Your task to perform on an android device: open app "Contacts" Image 0: 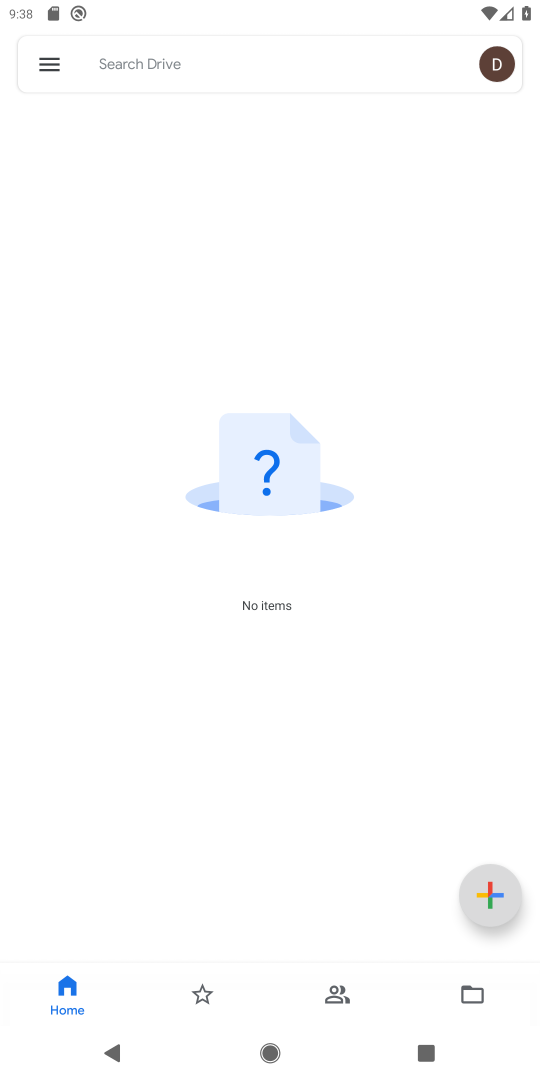
Step 0: press home button
Your task to perform on an android device: open app "Contacts" Image 1: 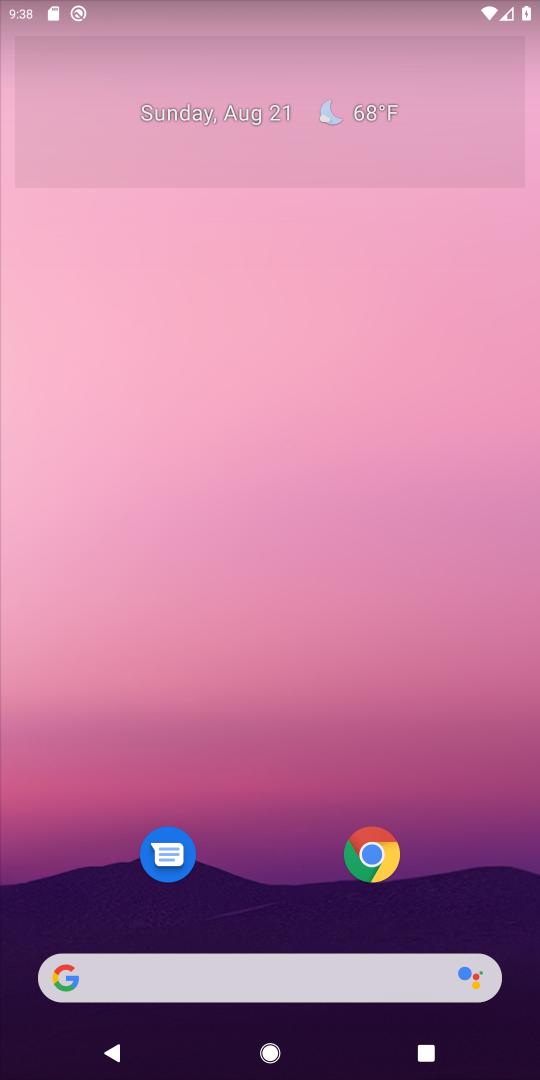
Step 1: drag from (281, 917) to (274, 88)
Your task to perform on an android device: open app "Contacts" Image 2: 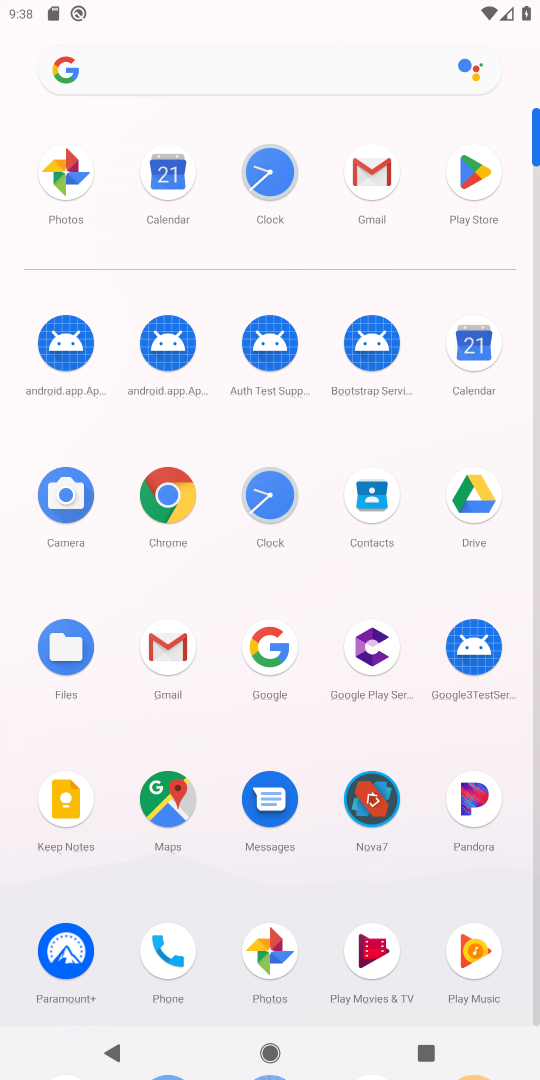
Step 2: click (351, 524)
Your task to perform on an android device: open app "Contacts" Image 3: 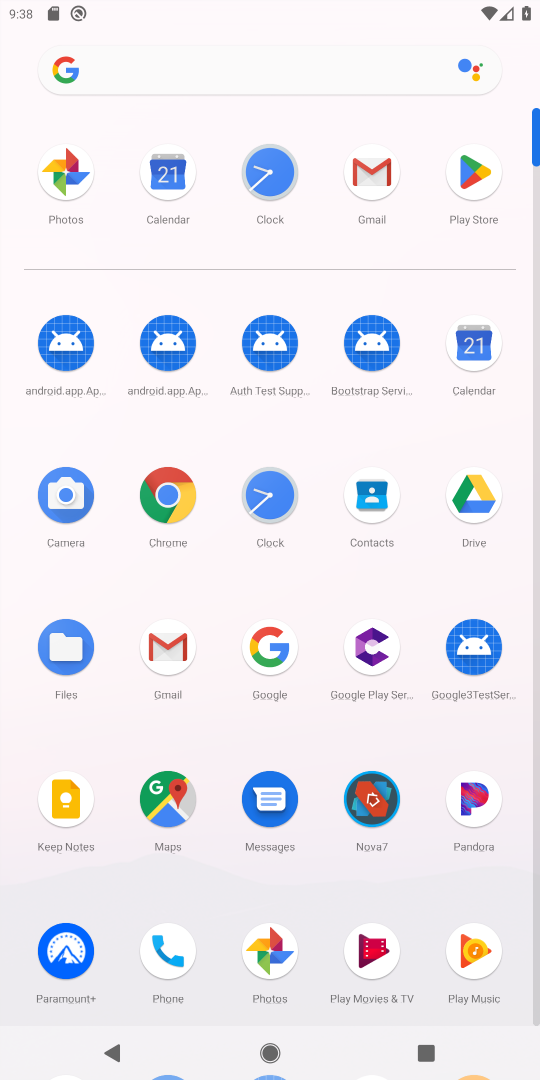
Step 3: task complete